Your task to perform on an android device: Go to network settings Image 0: 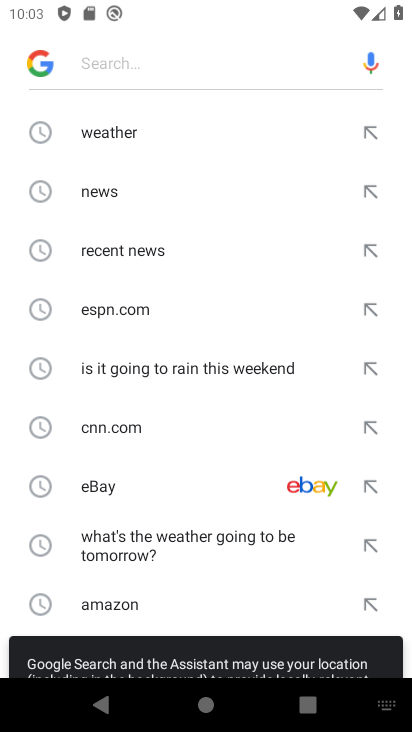
Step 0: press home button
Your task to perform on an android device: Go to network settings Image 1: 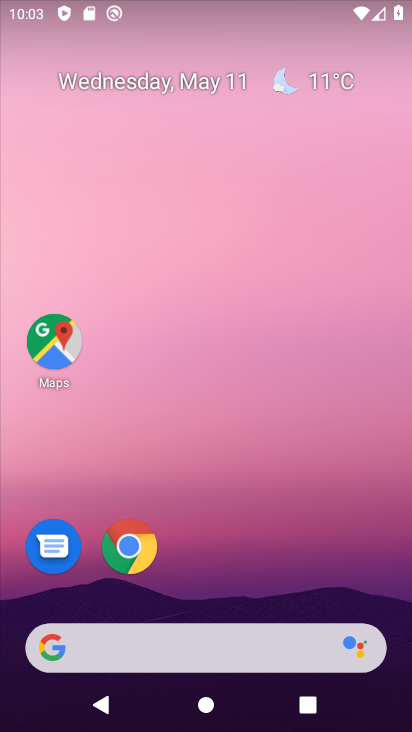
Step 1: drag from (266, 599) to (305, 57)
Your task to perform on an android device: Go to network settings Image 2: 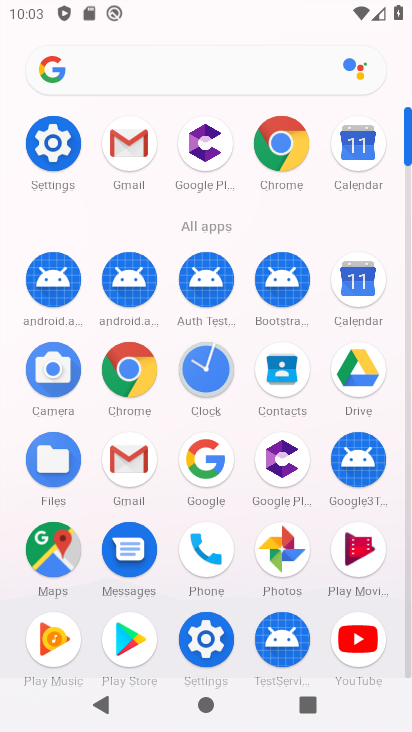
Step 2: click (58, 146)
Your task to perform on an android device: Go to network settings Image 3: 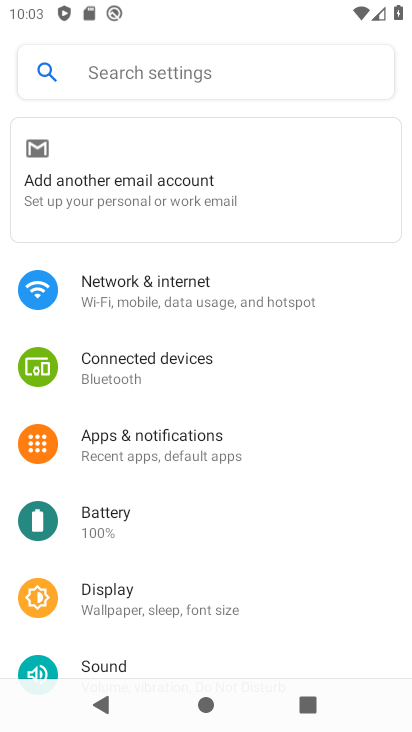
Step 3: click (159, 295)
Your task to perform on an android device: Go to network settings Image 4: 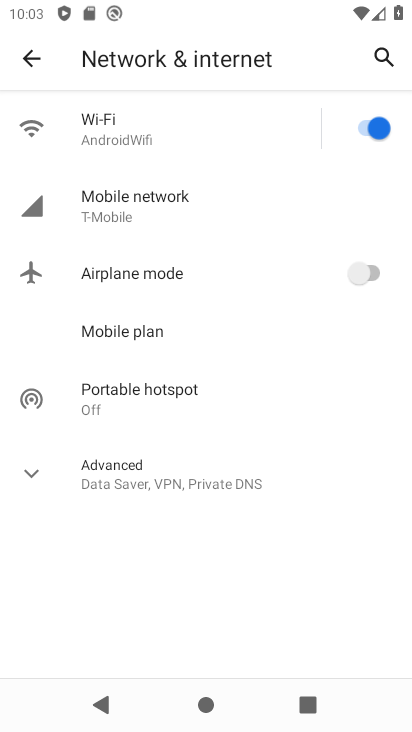
Step 4: task complete